Your task to perform on an android device: Open the web browser Image 0: 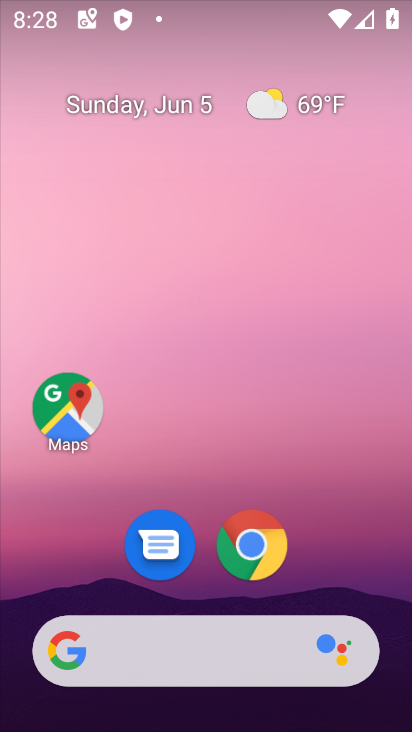
Step 0: drag from (347, 581) to (371, 158)
Your task to perform on an android device: Open the web browser Image 1: 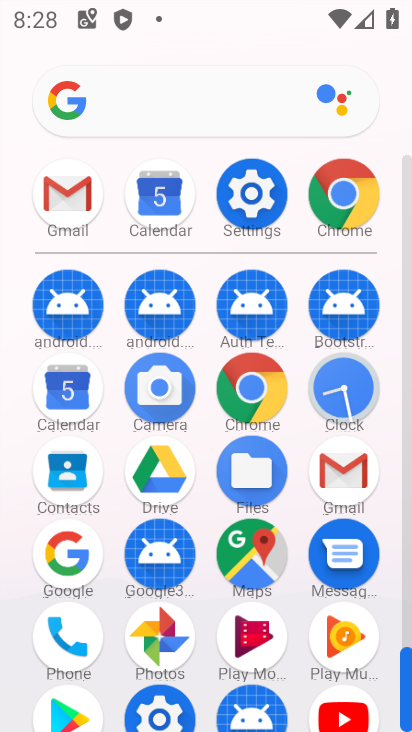
Step 1: click (254, 394)
Your task to perform on an android device: Open the web browser Image 2: 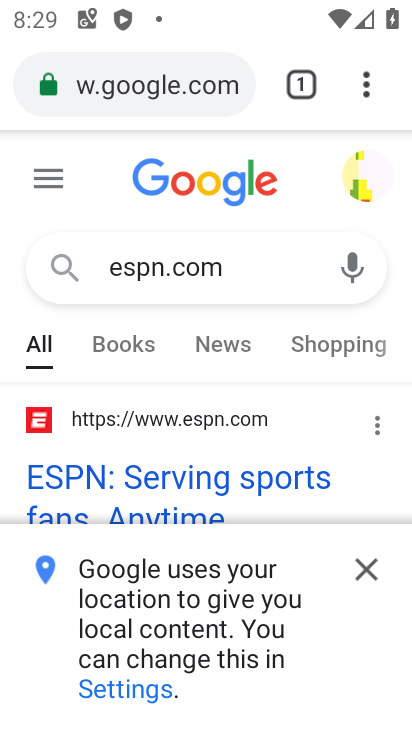
Step 2: task complete